Your task to perform on an android device: Turn on the flashlight Image 0: 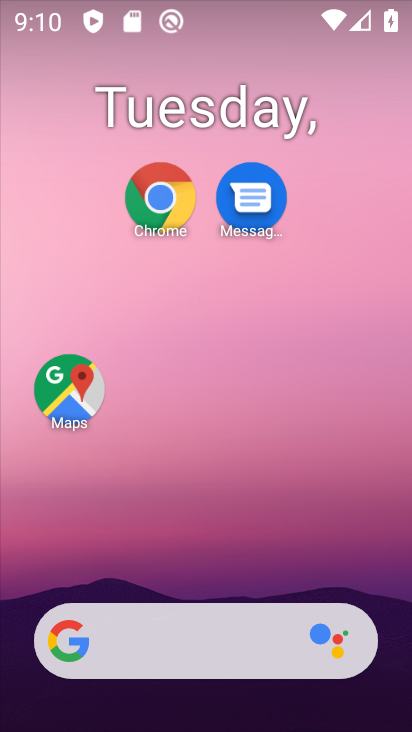
Step 0: drag from (226, 592) to (306, 30)
Your task to perform on an android device: Turn on the flashlight Image 1: 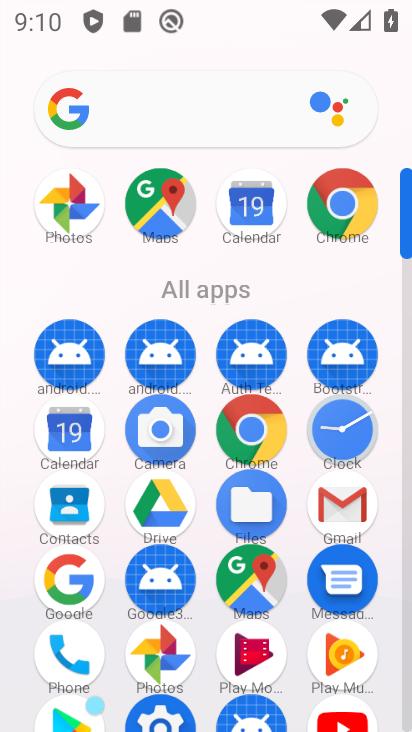
Step 1: click (151, 716)
Your task to perform on an android device: Turn on the flashlight Image 2: 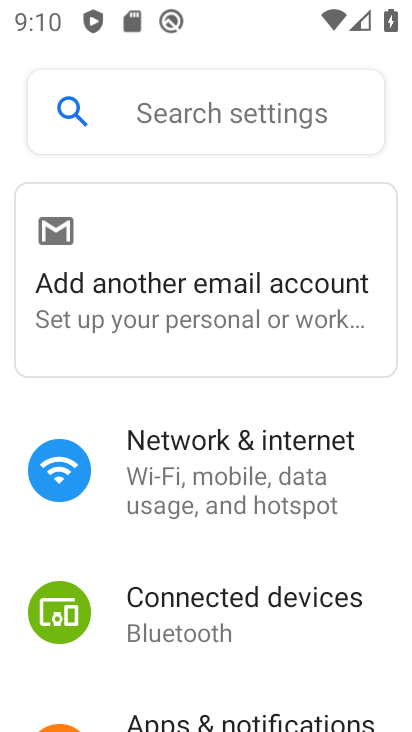
Step 2: task complete